Your task to perform on an android device: Search for vegetarian restaurants on Maps Image 0: 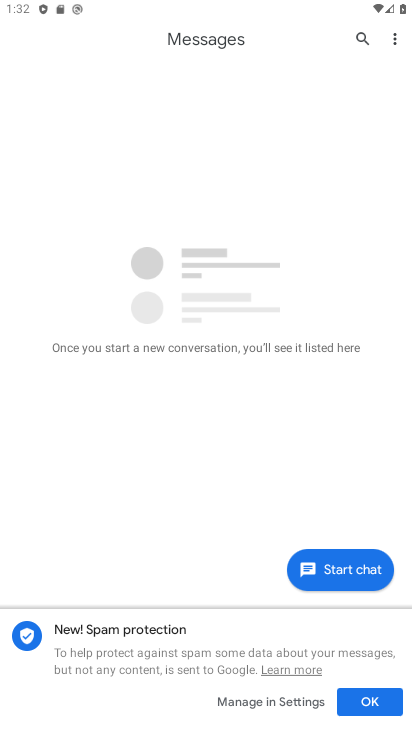
Step 0: press home button
Your task to perform on an android device: Search for vegetarian restaurants on Maps Image 1: 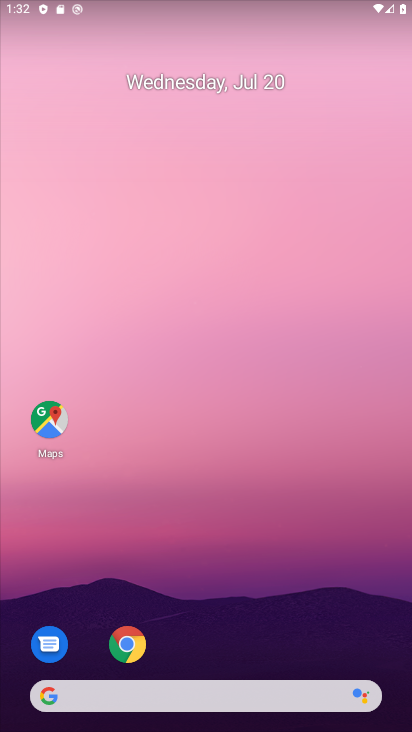
Step 1: click (41, 428)
Your task to perform on an android device: Search for vegetarian restaurants on Maps Image 2: 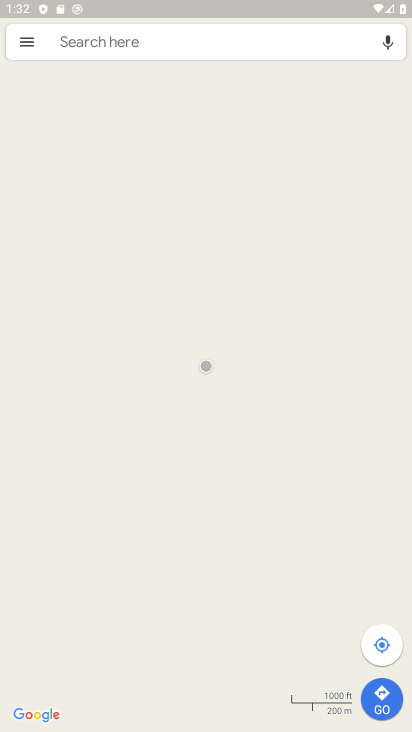
Step 2: click (186, 48)
Your task to perform on an android device: Search for vegetarian restaurants on Maps Image 3: 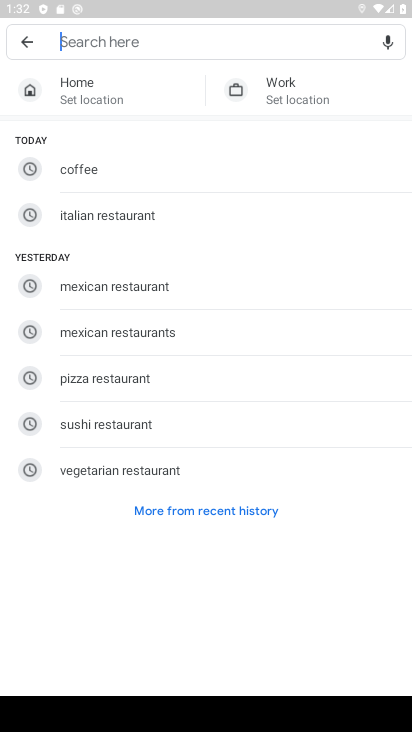
Step 3: type "vegetarian restaurants"
Your task to perform on an android device: Search for vegetarian restaurants on Maps Image 4: 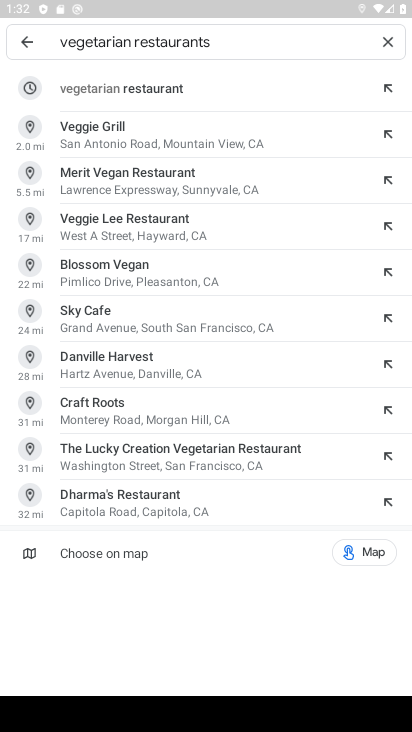
Step 4: click (130, 92)
Your task to perform on an android device: Search for vegetarian restaurants on Maps Image 5: 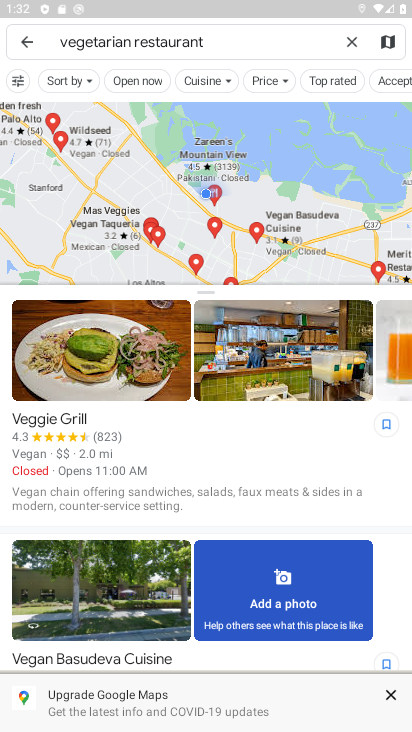
Step 5: task complete